Your task to perform on an android device: What's on my calendar today? Image 0: 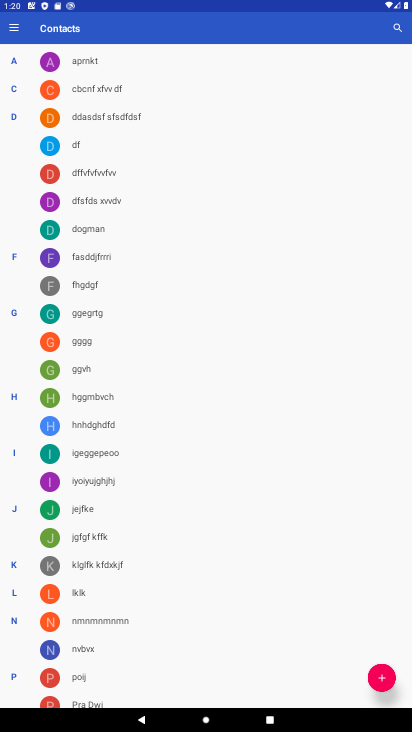
Step 0: press home button
Your task to perform on an android device: What's on my calendar today? Image 1: 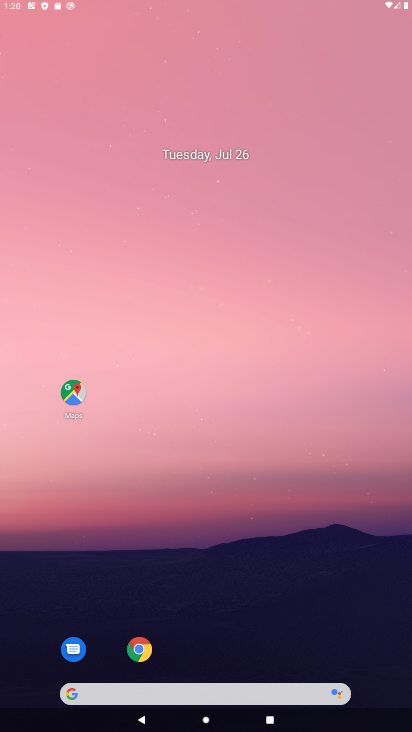
Step 1: drag from (354, 655) to (134, 38)
Your task to perform on an android device: What's on my calendar today? Image 2: 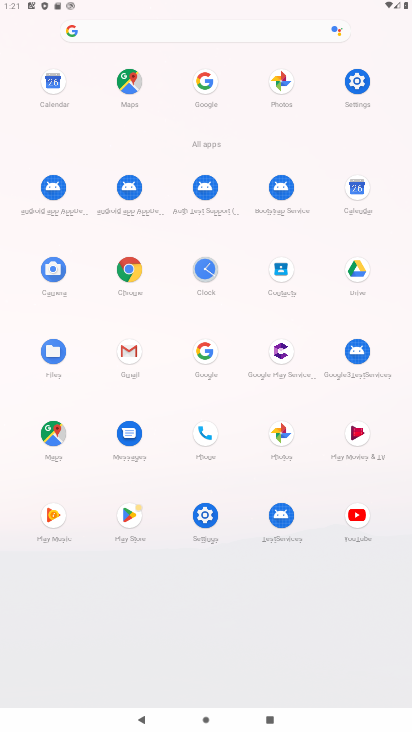
Step 2: click (367, 194)
Your task to perform on an android device: What's on my calendar today? Image 3: 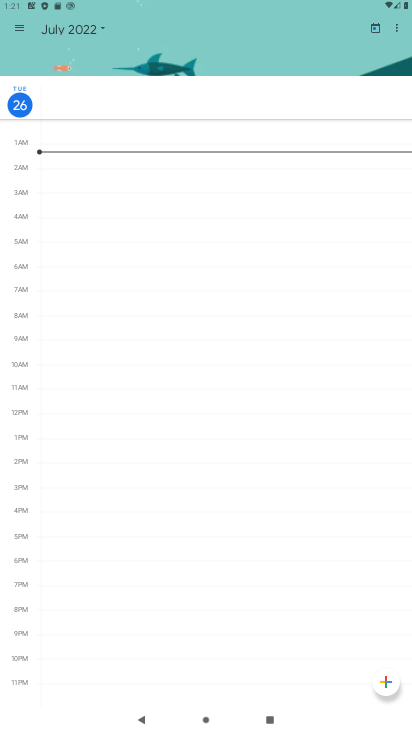
Step 3: task complete